Your task to perform on an android device: Open calendar and show me the first week of next month Image 0: 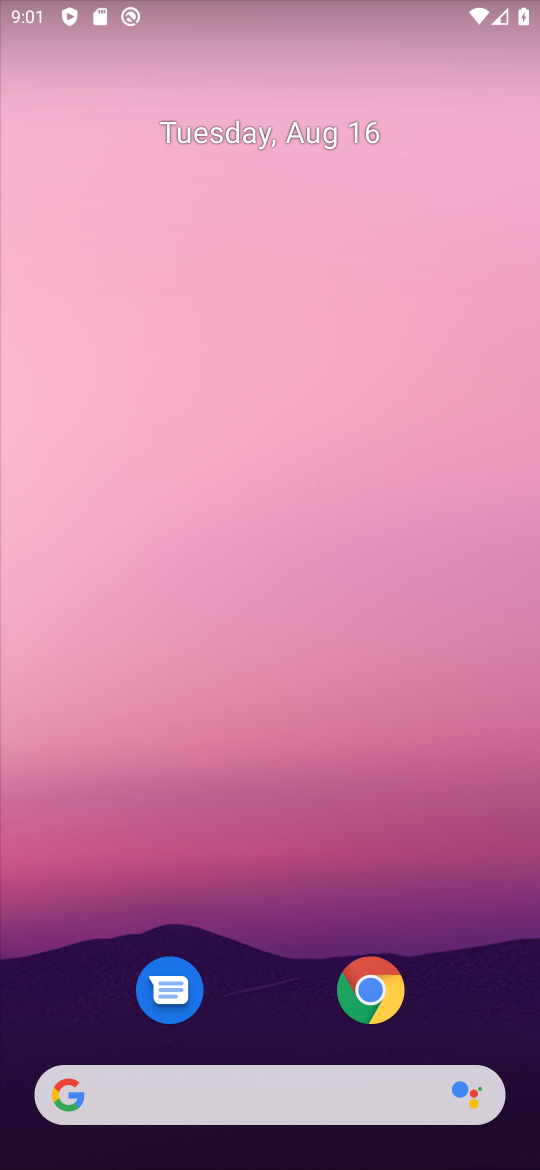
Step 0: drag from (497, 915) to (413, 414)
Your task to perform on an android device: Open calendar and show me the first week of next month Image 1: 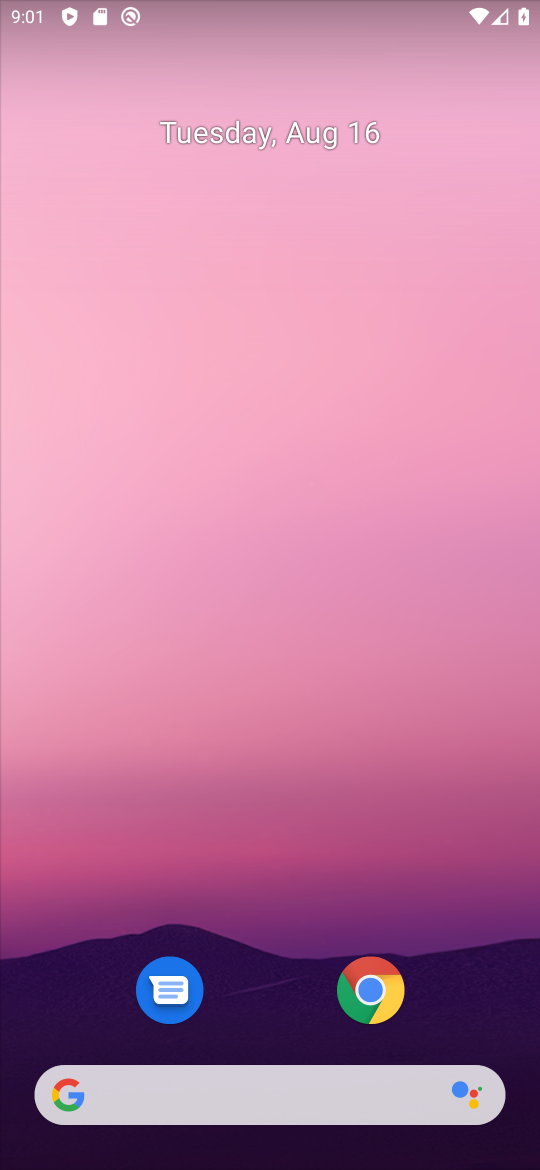
Step 1: drag from (470, 978) to (368, 336)
Your task to perform on an android device: Open calendar and show me the first week of next month Image 2: 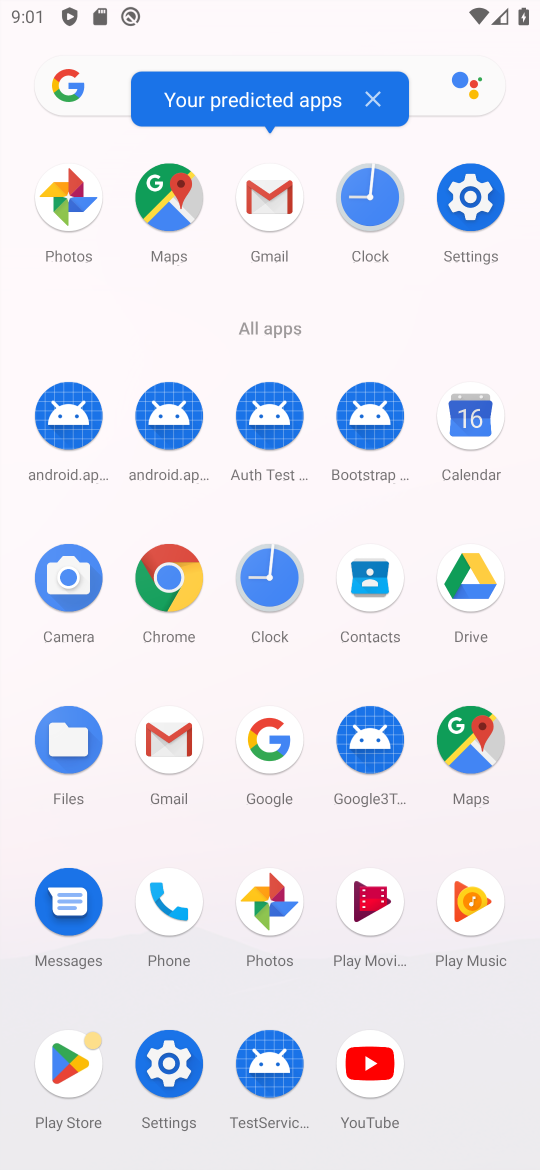
Step 2: click (458, 425)
Your task to perform on an android device: Open calendar and show me the first week of next month Image 3: 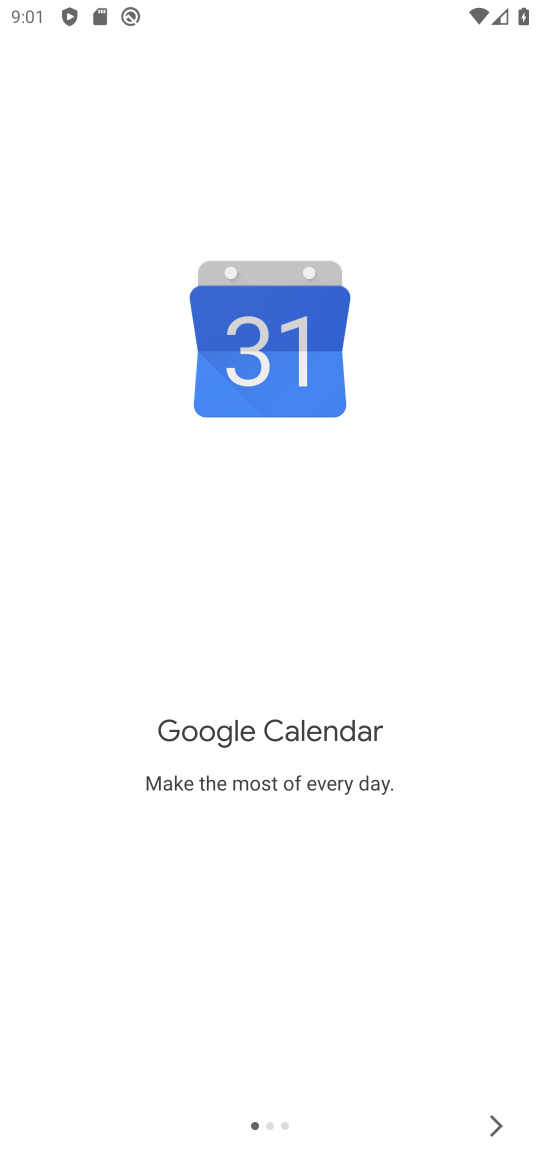
Step 3: click (502, 1126)
Your task to perform on an android device: Open calendar and show me the first week of next month Image 4: 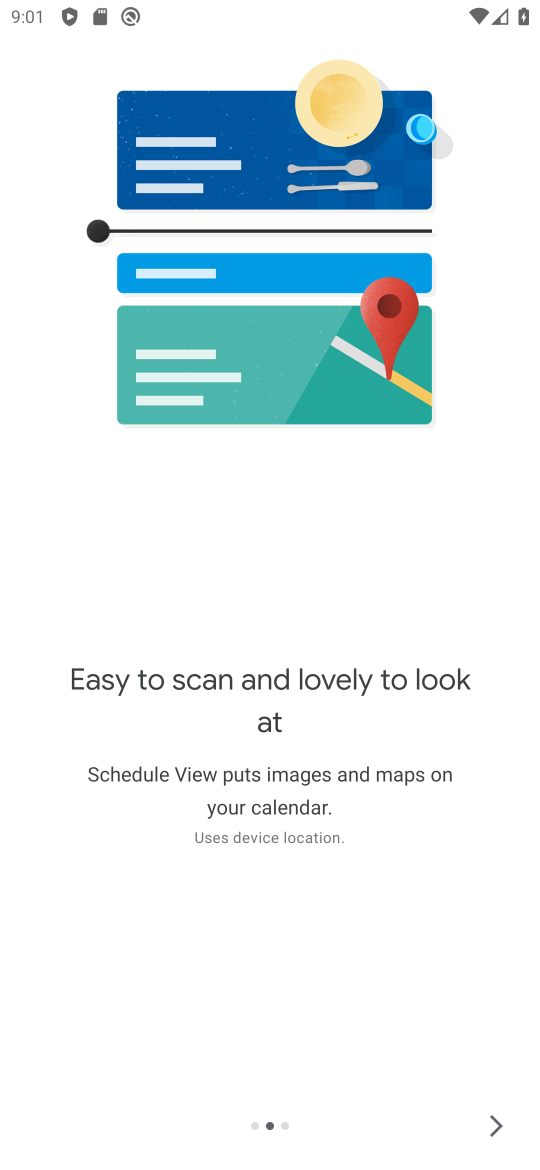
Step 4: click (502, 1126)
Your task to perform on an android device: Open calendar and show me the first week of next month Image 5: 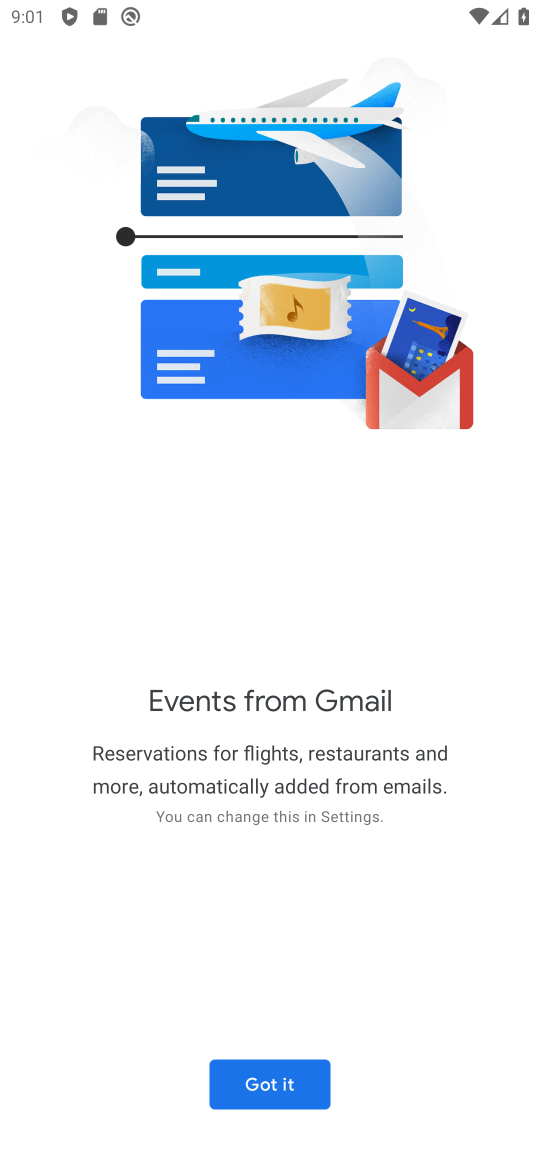
Step 5: click (284, 1091)
Your task to perform on an android device: Open calendar and show me the first week of next month Image 6: 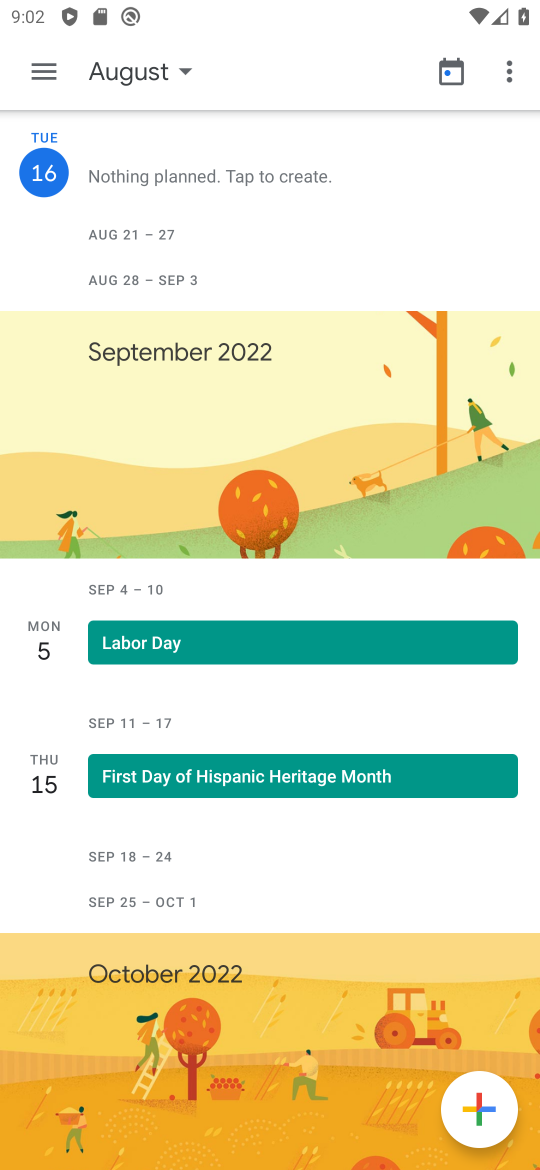
Step 6: click (134, 64)
Your task to perform on an android device: Open calendar and show me the first week of next month Image 7: 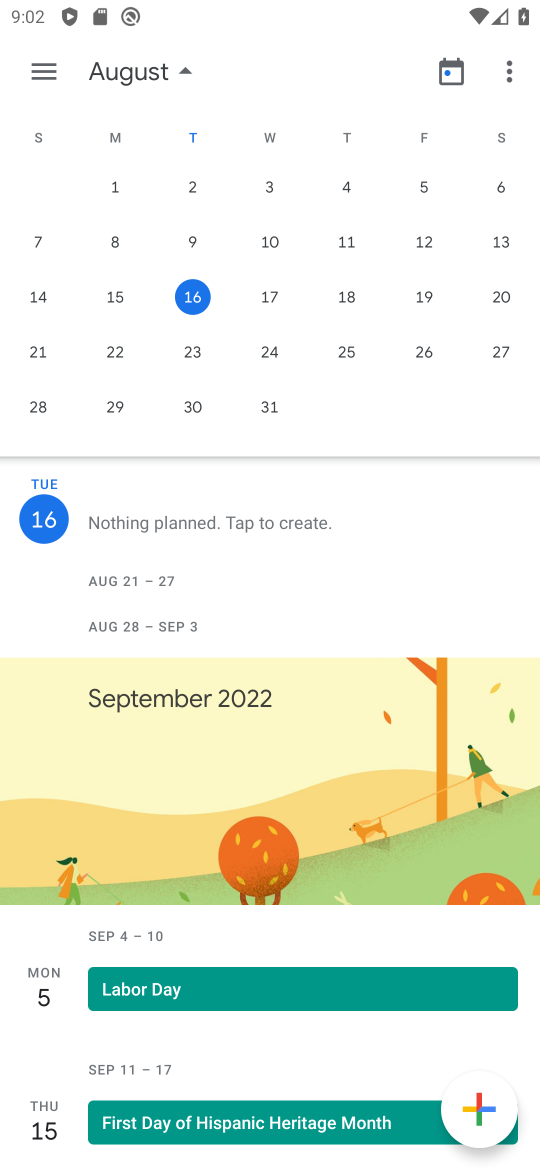
Step 7: drag from (475, 338) to (0, 296)
Your task to perform on an android device: Open calendar and show me the first week of next month Image 8: 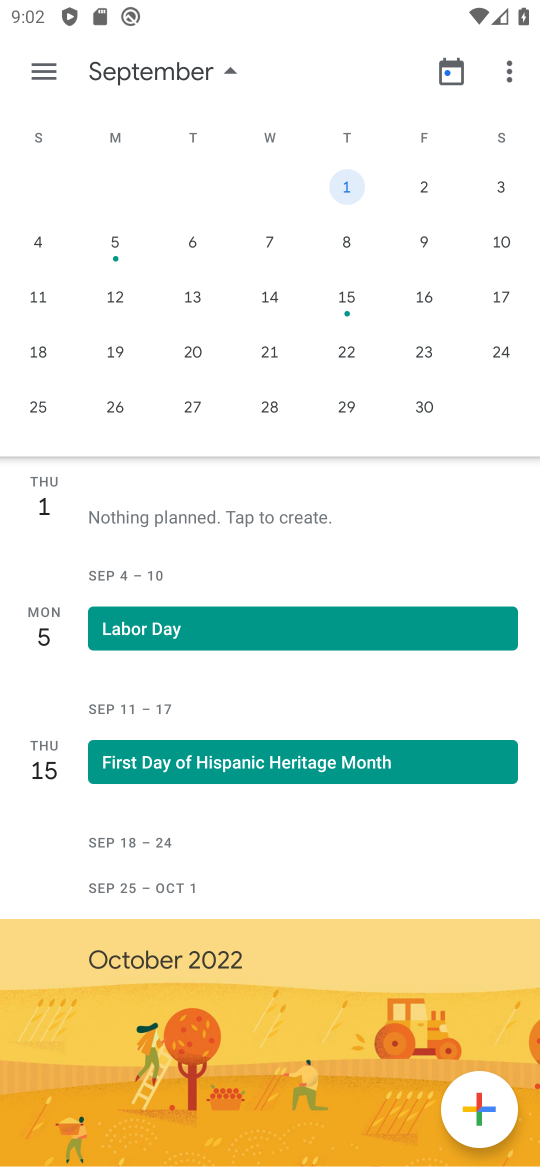
Step 8: click (203, 240)
Your task to perform on an android device: Open calendar and show me the first week of next month Image 9: 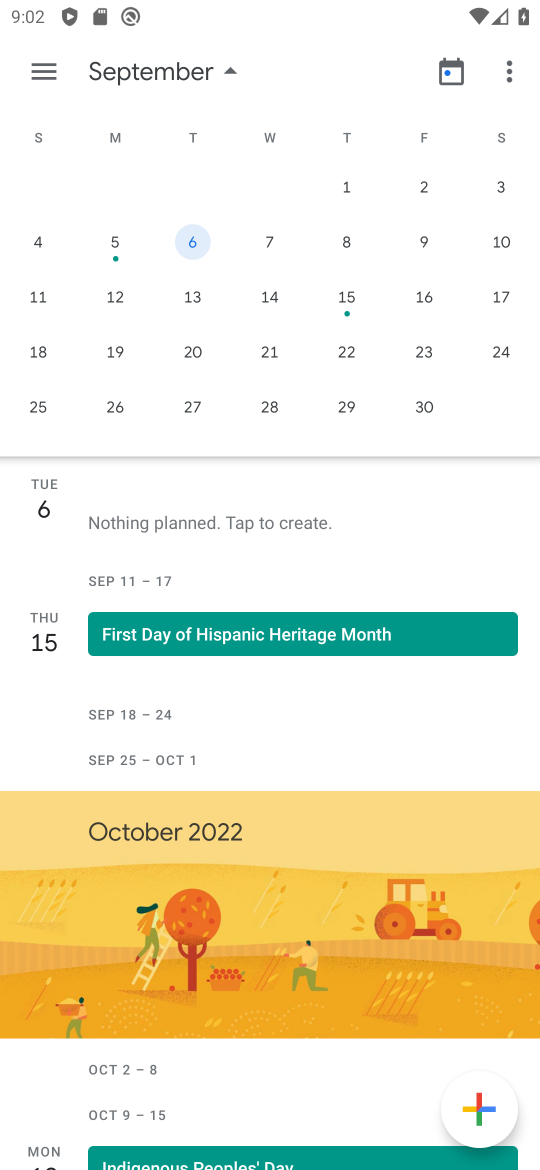
Step 9: click (56, 66)
Your task to perform on an android device: Open calendar and show me the first week of next month Image 10: 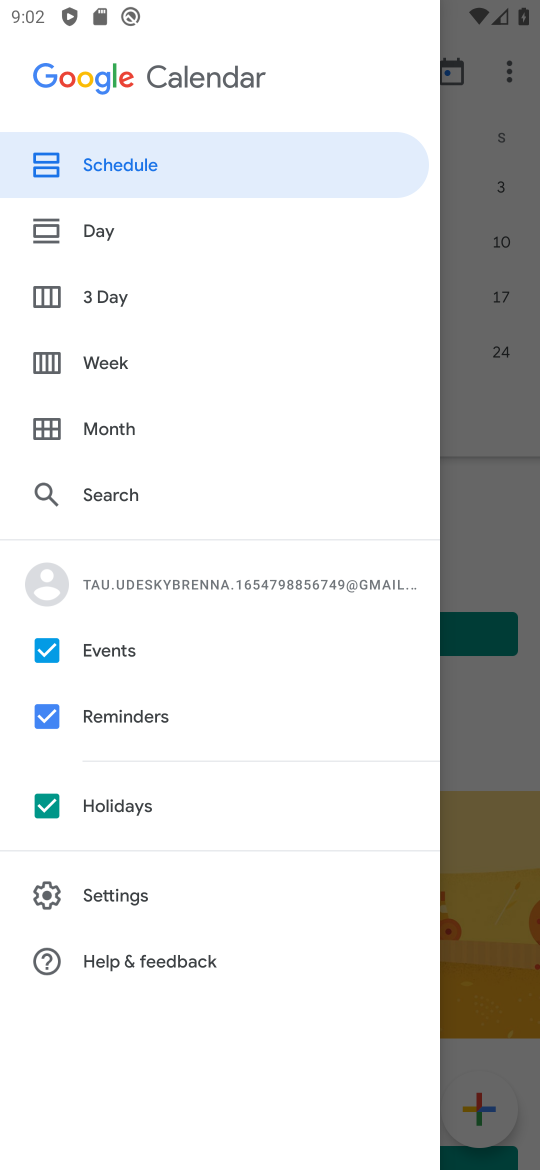
Step 10: click (159, 362)
Your task to perform on an android device: Open calendar and show me the first week of next month Image 11: 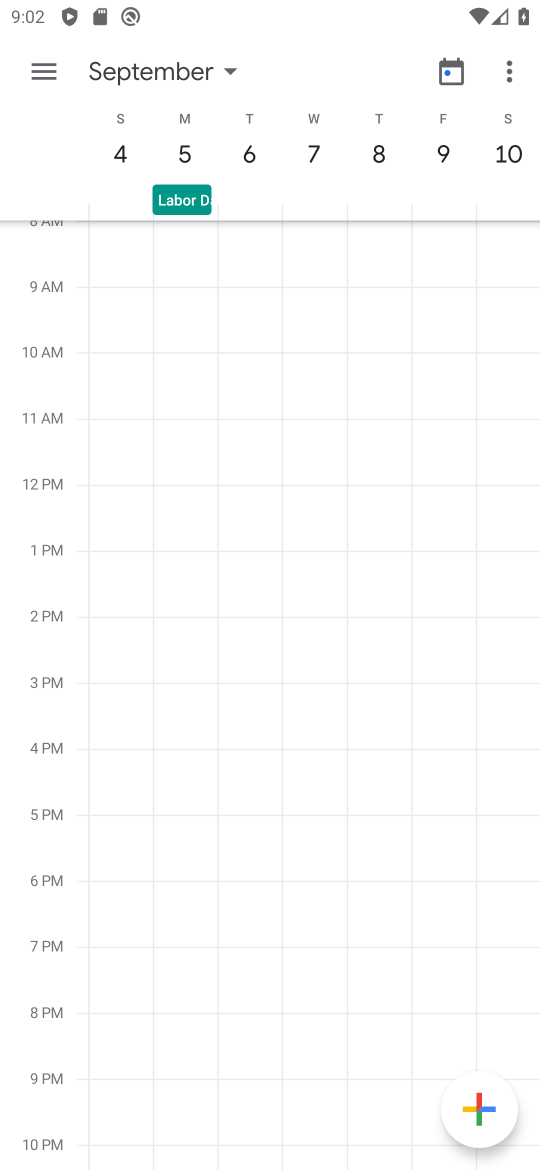
Step 11: task complete